Your task to perform on an android device: Go to internet settings Image 0: 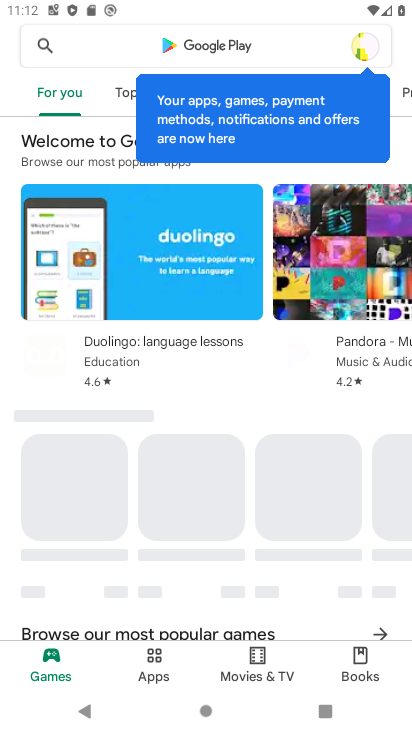
Step 0: press back button
Your task to perform on an android device: Go to internet settings Image 1: 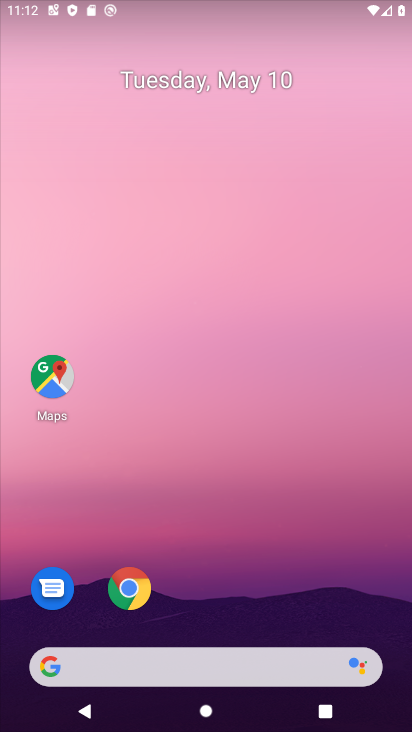
Step 1: drag from (324, 595) to (196, 143)
Your task to perform on an android device: Go to internet settings Image 2: 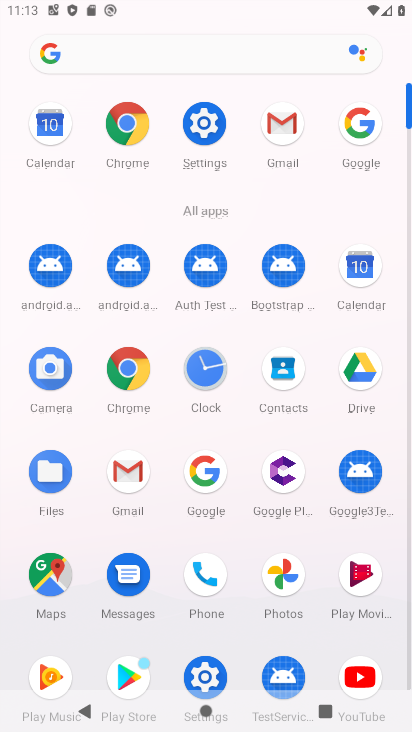
Step 2: click (206, 122)
Your task to perform on an android device: Go to internet settings Image 3: 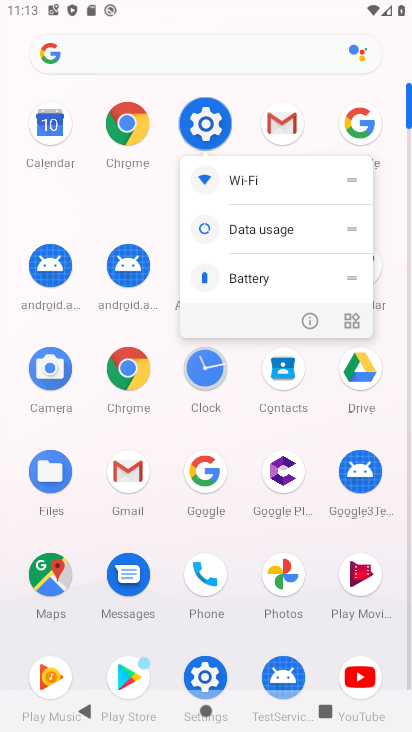
Step 3: click (206, 122)
Your task to perform on an android device: Go to internet settings Image 4: 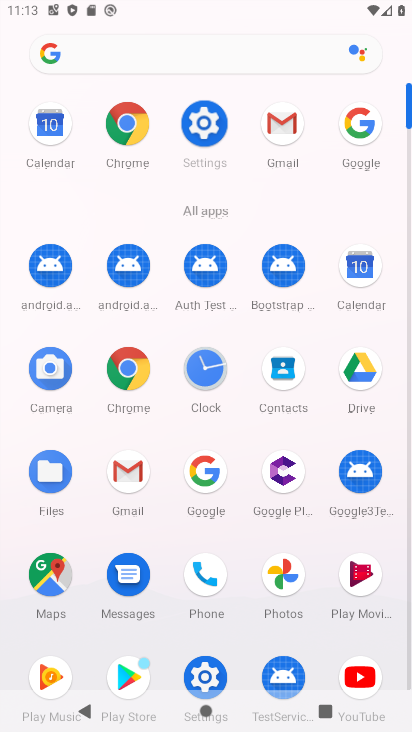
Step 4: click (206, 122)
Your task to perform on an android device: Go to internet settings Image 5: 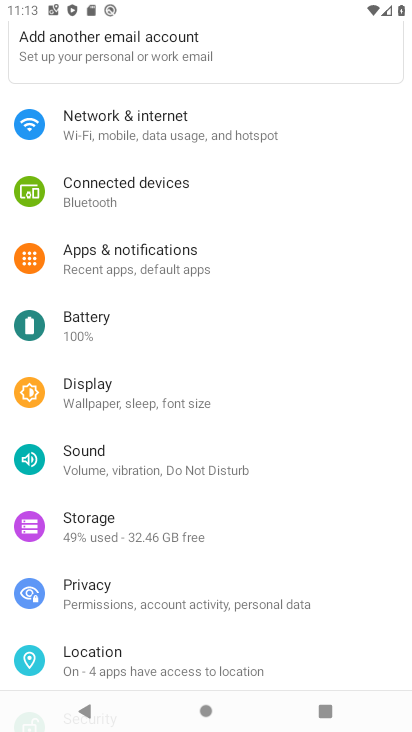
Step 5: click (134, 134)
Your task to perform on an android device: Go to internet settings Image 6: 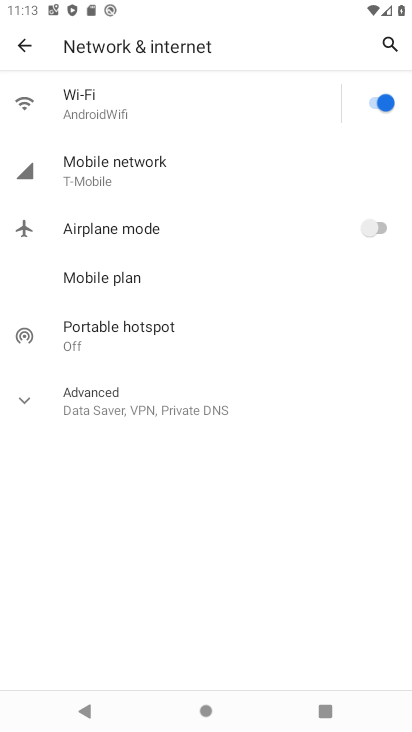
Step 6: click (135, 135)
Your task to perform on an android device: Go to internet settings Image 7: 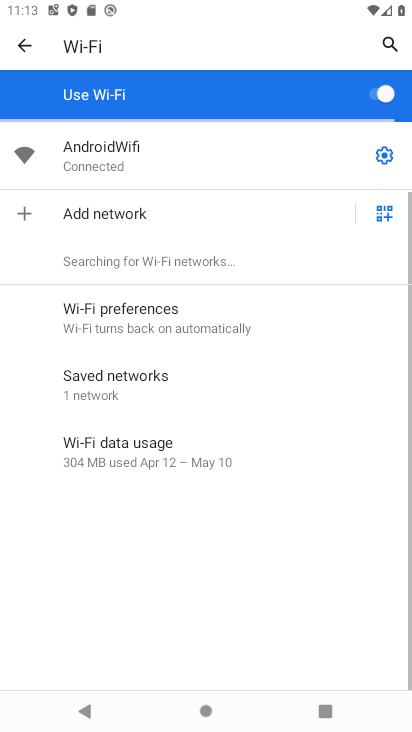
Step 7: task complete